Your task to perform on an android device: turn on sleep mode Image 0: 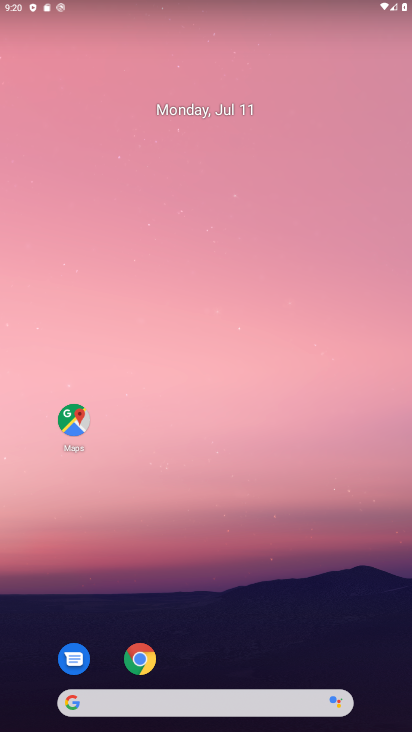
Step 0: drag from (244, 640) to (304, 0)
Your task to perform on an android device: turn on sleep mode Image 1: 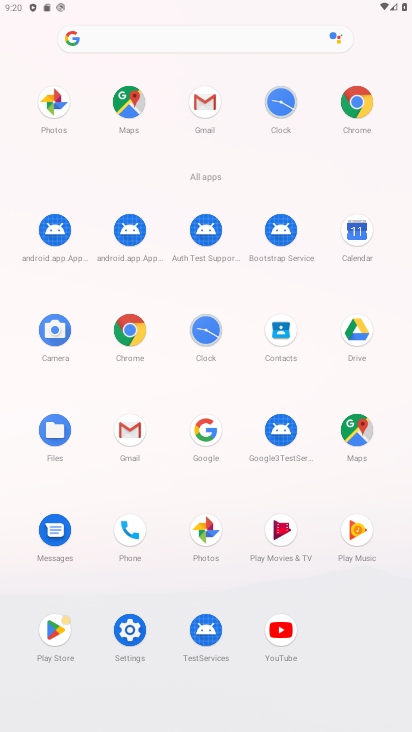
Step 1: click (122, 633)
Your task to perform on an android device: turn on sleep mode Image 2: 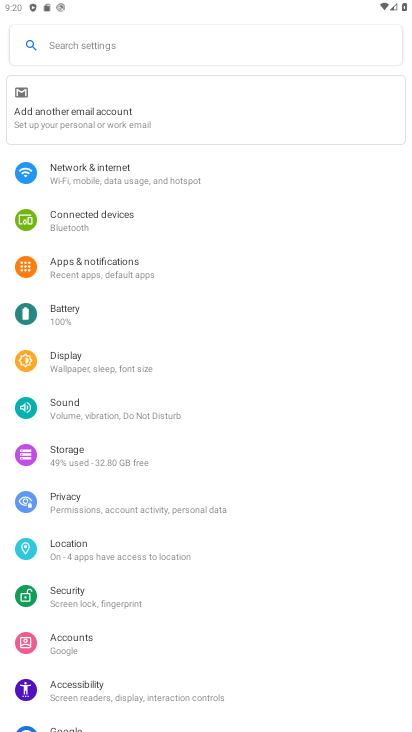
Step 2: drag from (157, 605) to (285, 60)
Your task to perform on an android device: turn on sleep mode Image 3: 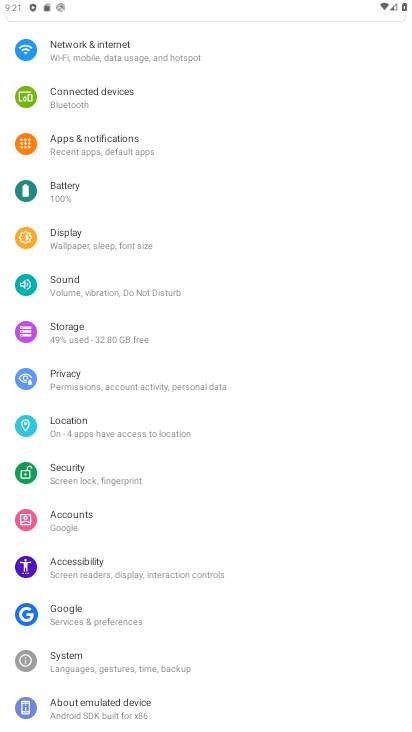
Step 3: click (77, 251)
Your task to perform on an android device: turn on sleep mode Image 4: 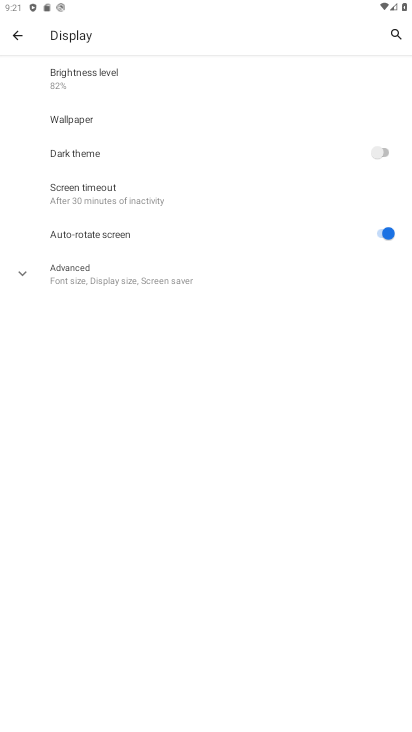
Step 4: click (120, 194)
Your task to perform on an android device: turn on sleep mode Image 5: 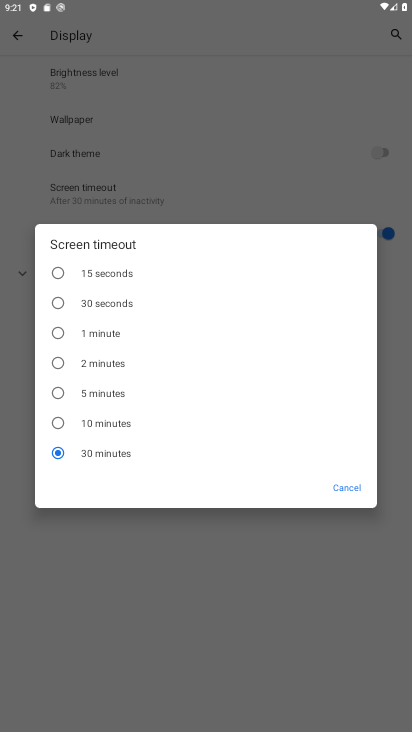
Step 5: task complete